Your task to perform on an android device: Open calendar and show me the fourth week of next month Image 0: 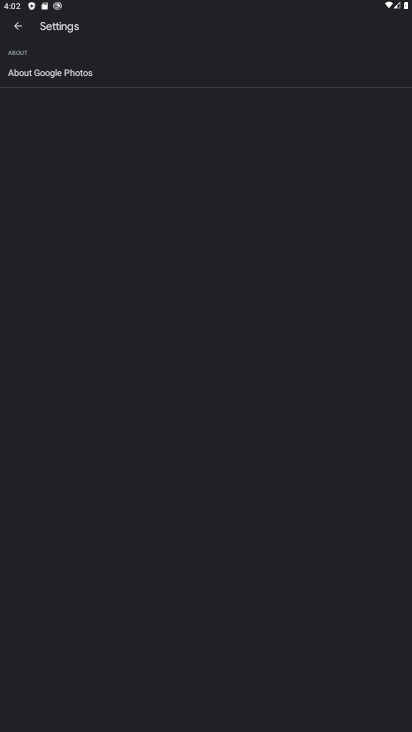
Step 0: press home button
Your task to perform on an android device: Open calendar and show me the fourth week of next month Image 1: 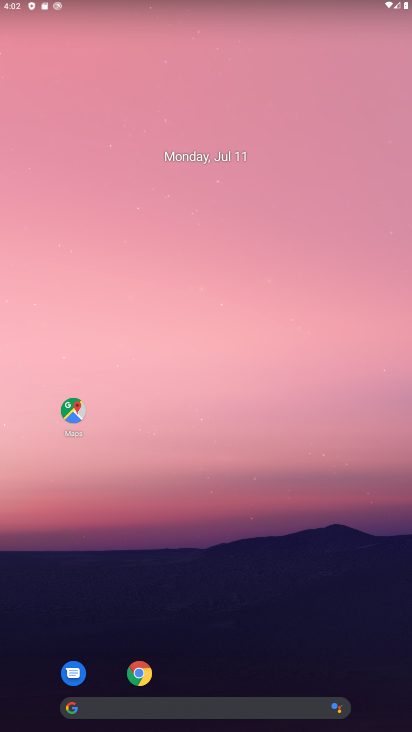
Step 1: drag from (185, 673) to (182, 113)
Your task to perform on an android device: Open calendar and show me the fourth week of next month Image 2: 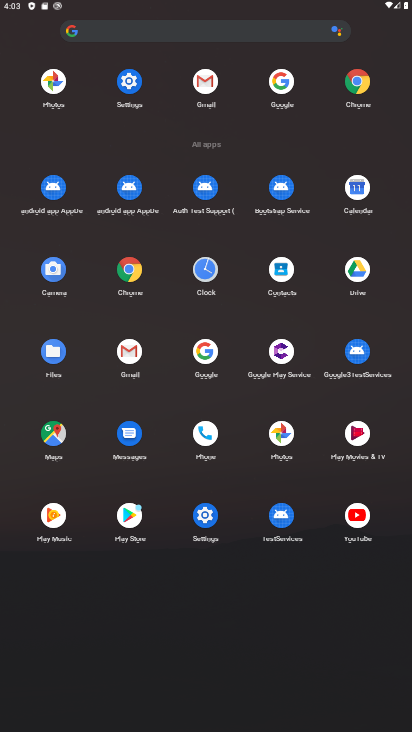
Step 2: click (359, 192)
Your task to perform on an android device: Open calendar and show me the fourth week of next month Image 3: 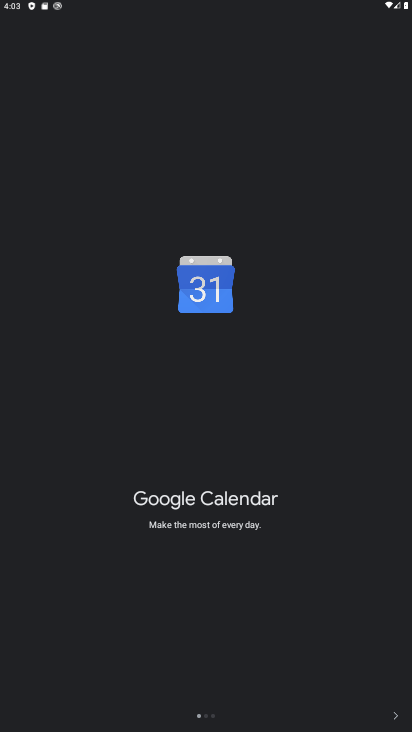
Step 3: click (396, 716)
Your task to perform on an android device: Open calendar and show me the fourth week of next month Image 4: 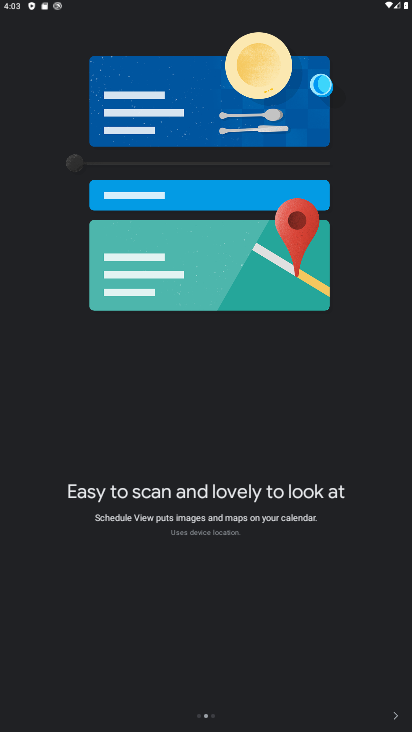
Step 4: click (396, 716)
Your task to perform on an android device: Open calendar and show me the fourth week of next month Image 5: 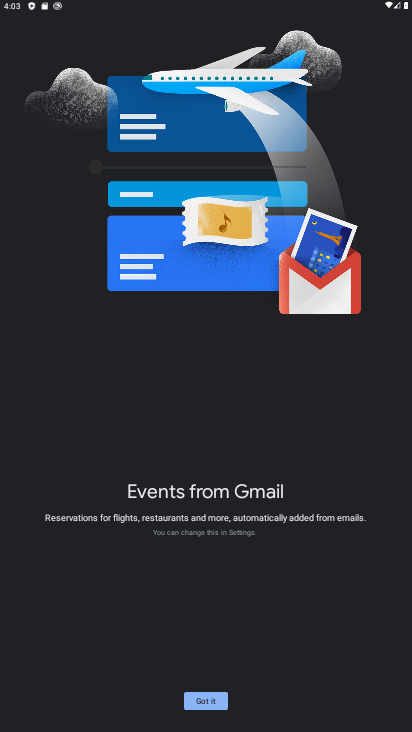
Step 5: click (215, 703)
Your task to perform on an android device: Open calendar and show me the fourth week of next month Image 6: 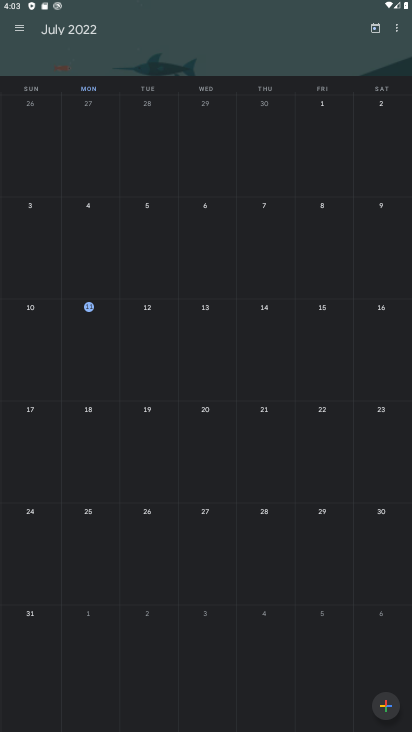
Step 6: drag from (383, 363) to (4, 299)
Your task to perform on an android device: Open calendar and show me the fourth week of next month Image 7: 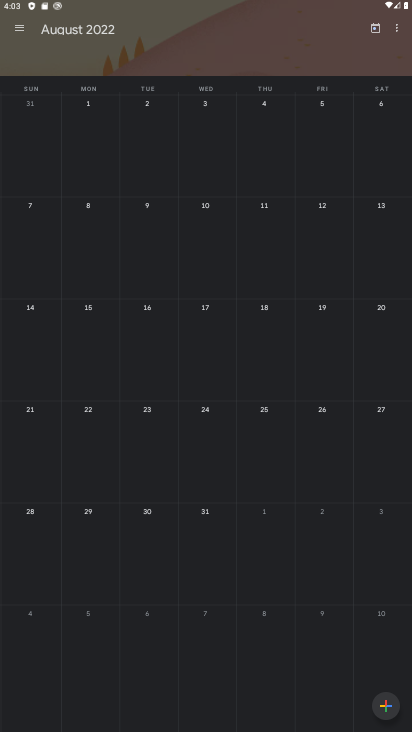
Step 7: click (100, 449)
Your task to perform on an android device: Open calendar and show me the fourth week of next month Image 8: 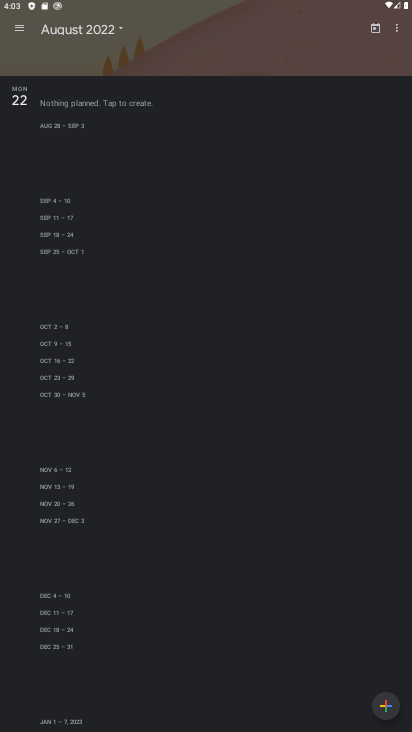
Step 8: click (17, 25)
Your task to perform on an android device: Open calendar and show me the fourth week of next month Image 9: 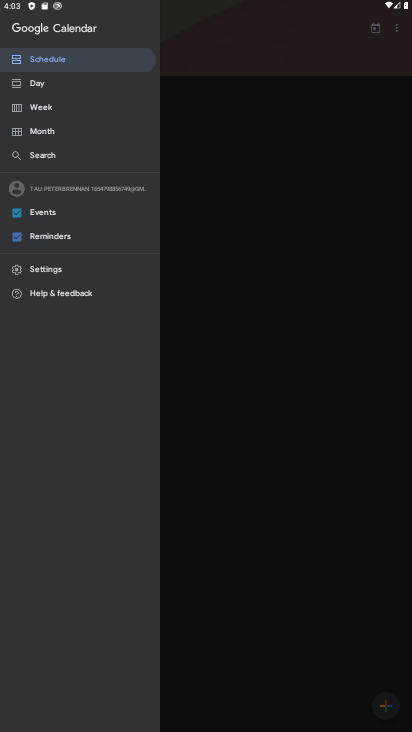
Step 9: click (54, 112)
Your task to perform on an android device: Open calendar and show me the fourth week of next month Image 10: 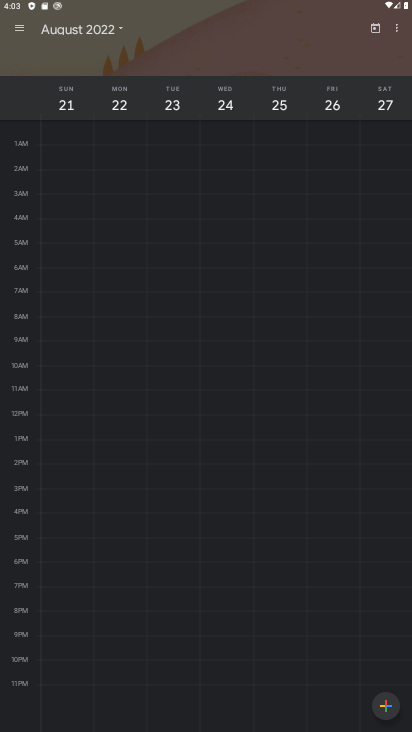
Step 10: task complete